Your task to perform on an android device: What's on my calendar tomorrow? Image 0: 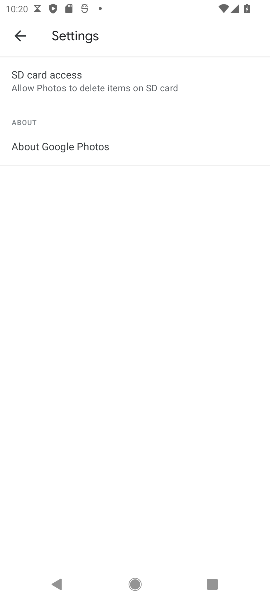
Step 0: press home button
Your task to perform on an android device: What's on my calendar tomorrow? Image 1: 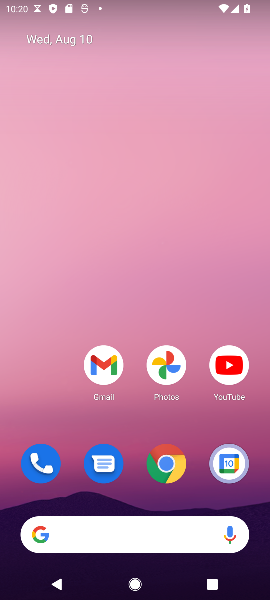
Step 1: drag from (32, 564) to (177, 33)
Your task to perform on an android device: What's on my calendar tomorrow? Image 2: 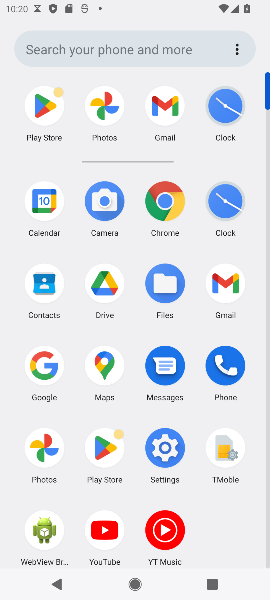
Step 2: click (46, 206)
Your task to perform on an android device: What's on my calendar tomorrow? Image 3: 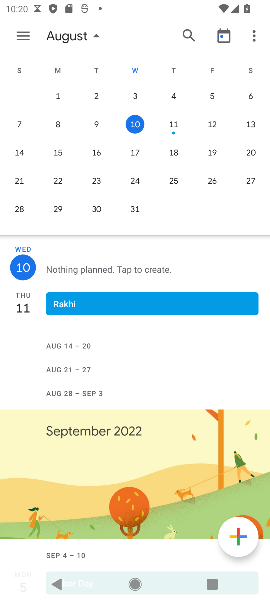
Step 3: task complete